Your task to perform on an android device: Open Yahoo.com Image 0: 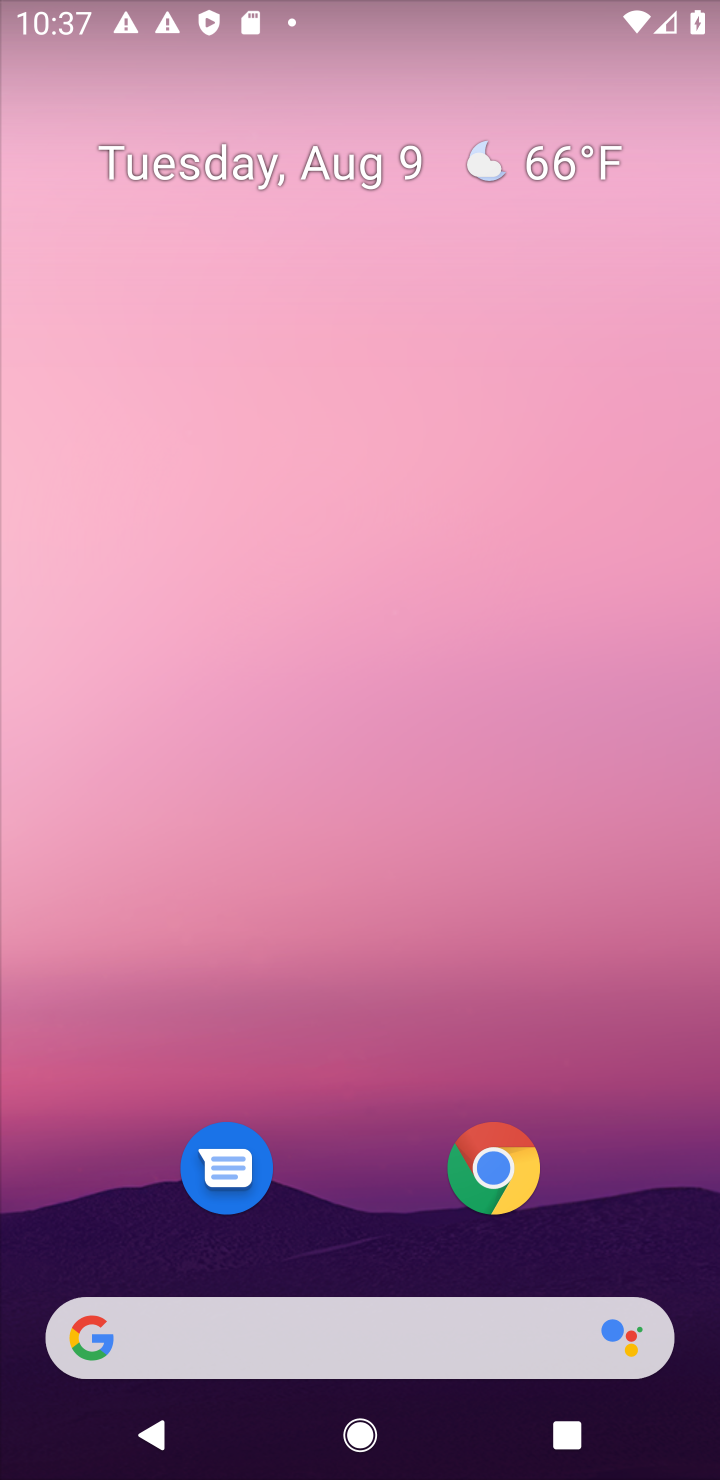
Step 0: drag from (385, 1184) to (445, 14)
Your task to perform on an android device: Open Yahoo.com Image 1: 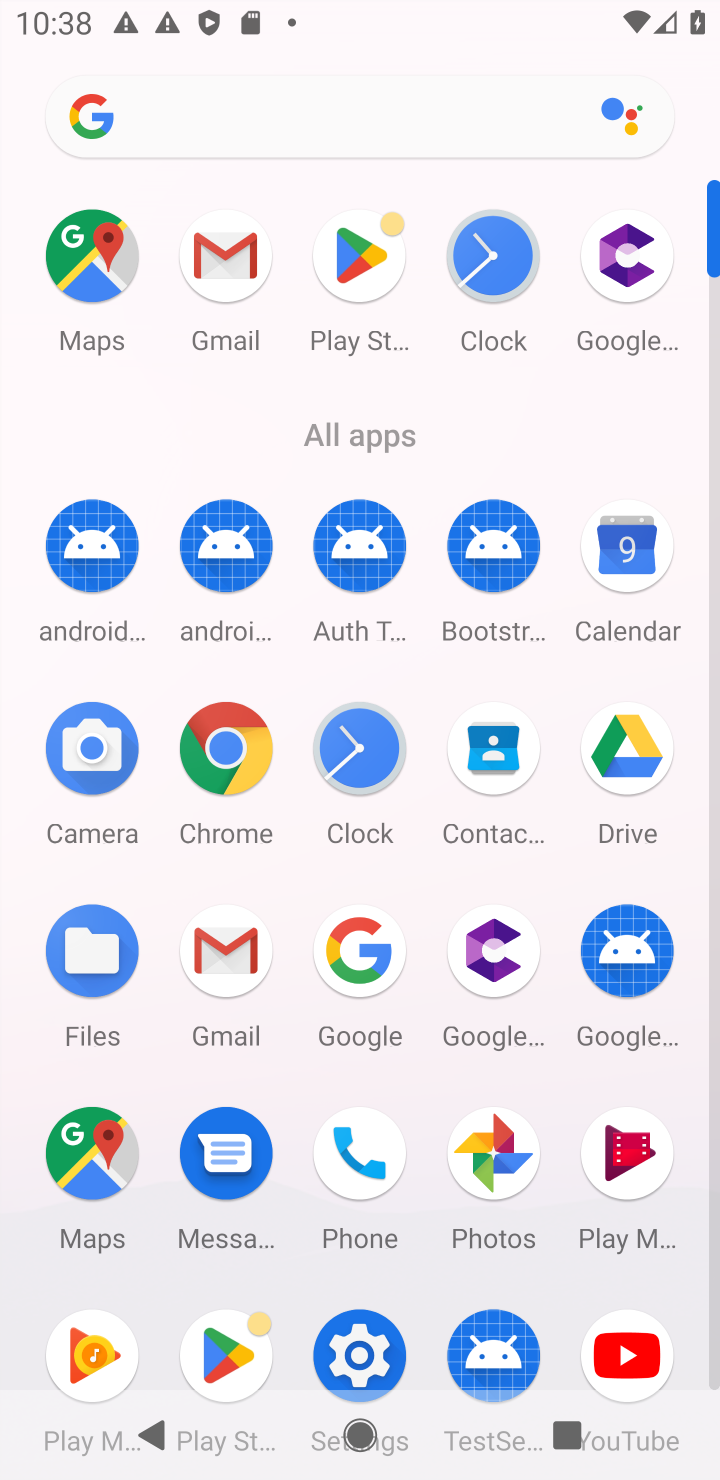
Step 1: click (232, 753)
Your task to perform on an android device: Open Yahoo.com Image 2: 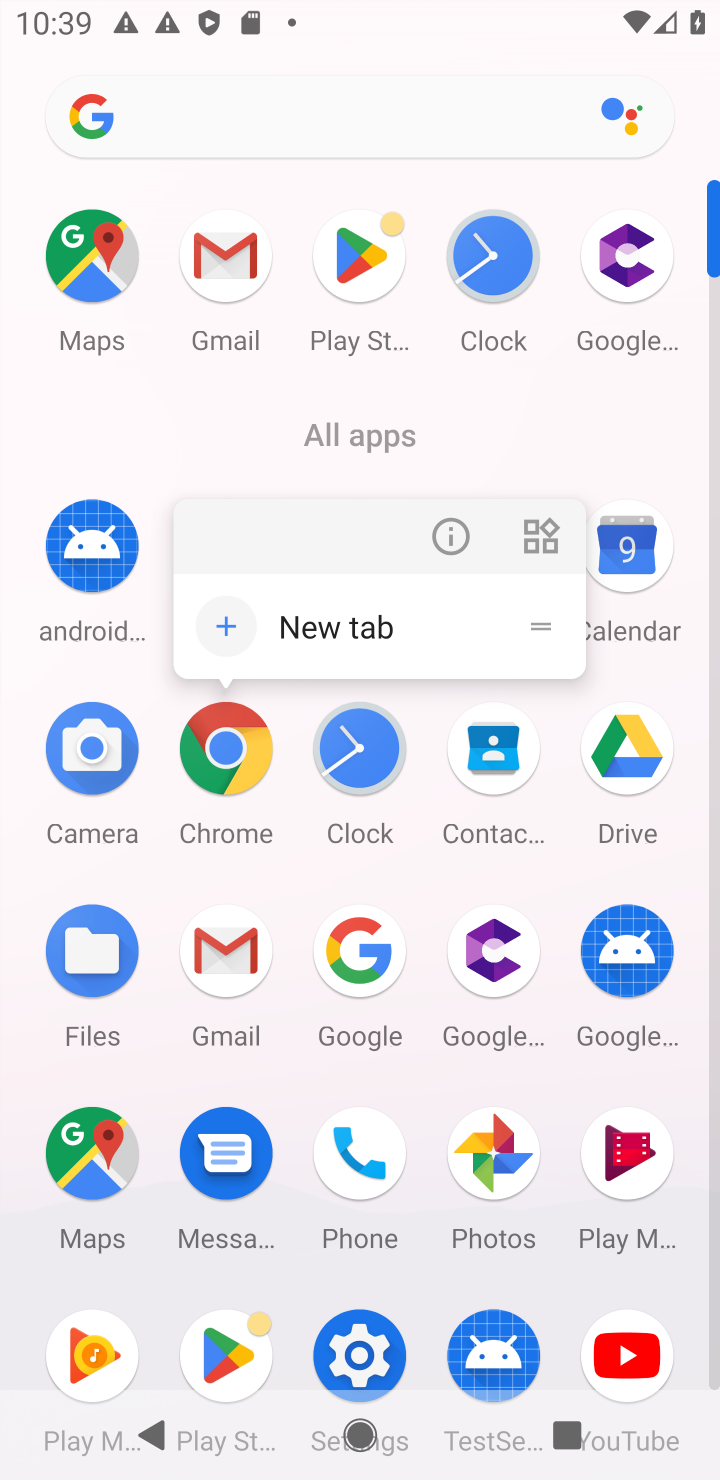
Step 2: click (227, 760)
Your task to perform on an android device: Open Yahoo.com Image 3: 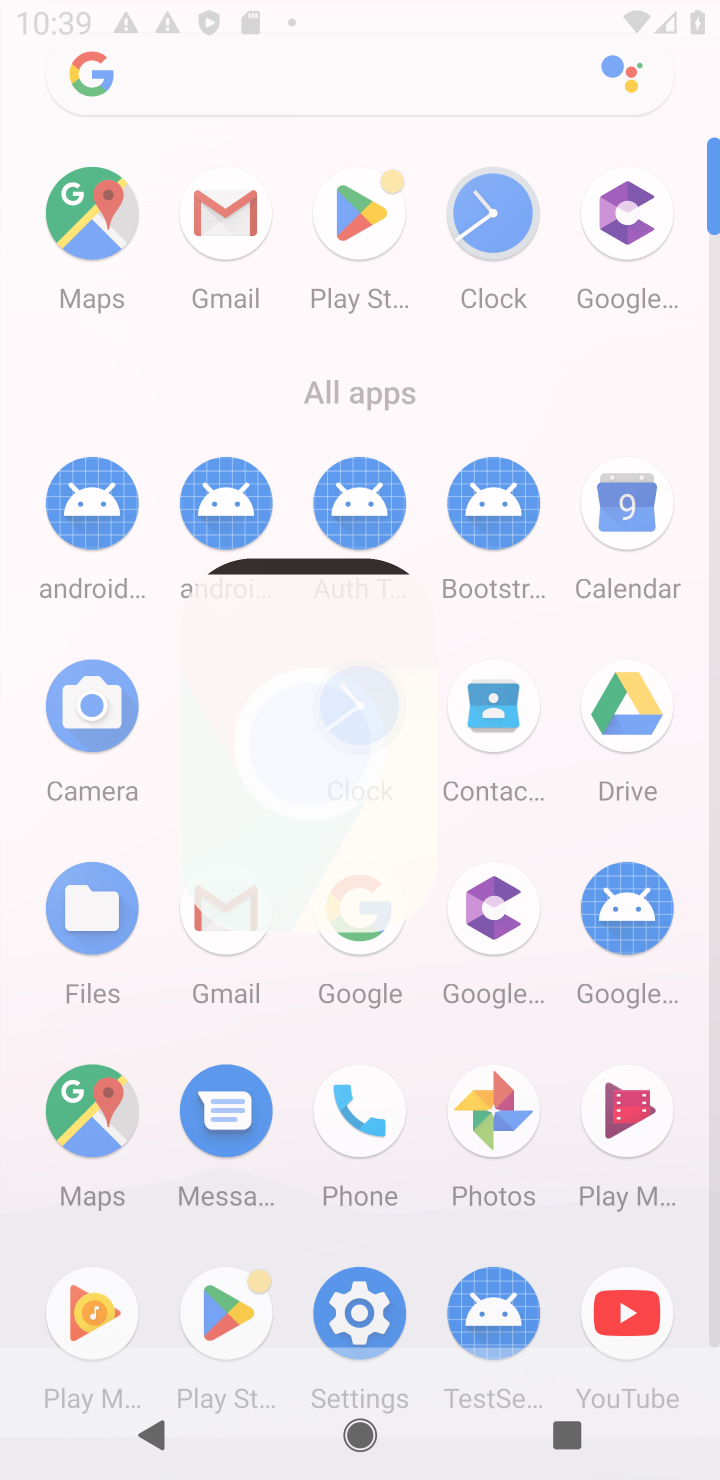
Step 3: click (227, 760)
Your task to perform on an android device: Open Yahoo.com Image 4: 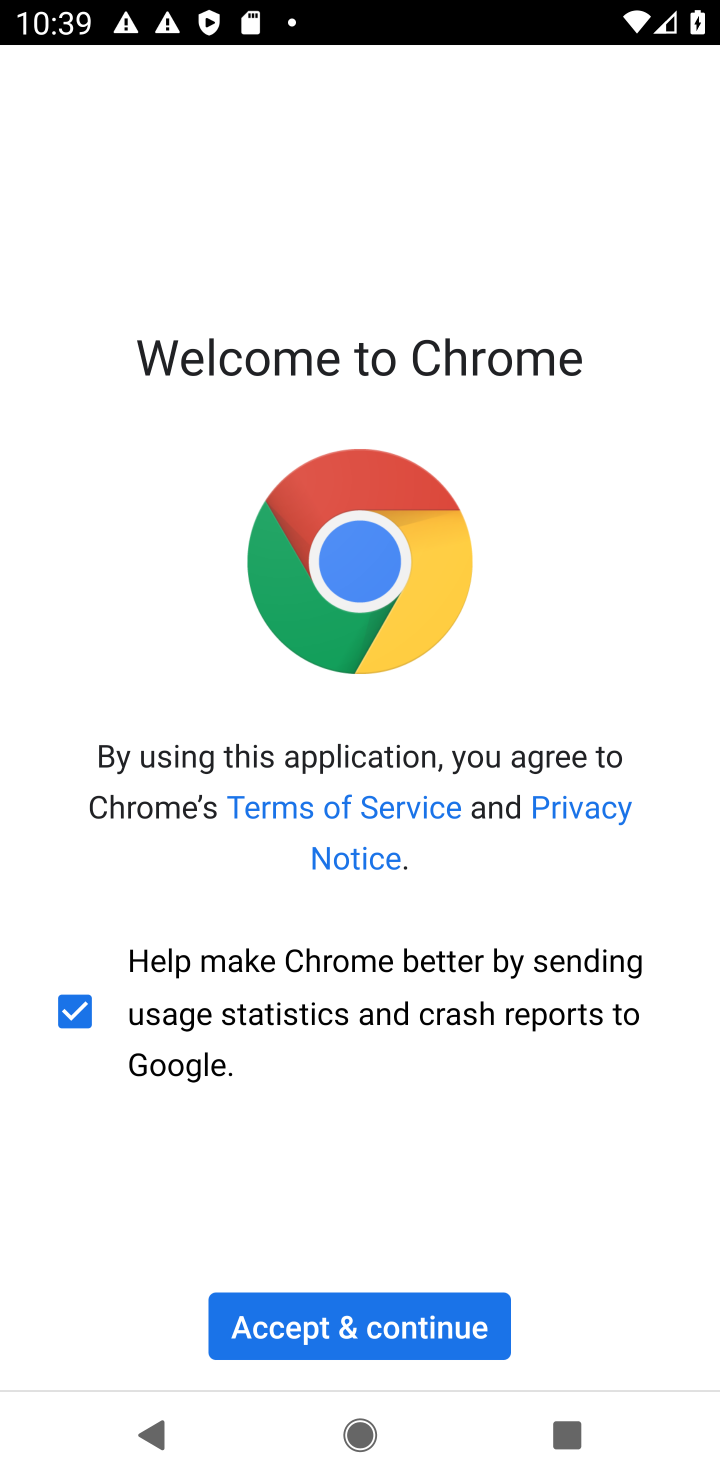
Step 4: click (385, 1326)
Your task to perform on an android device: Open Yahoo.com Image 5: 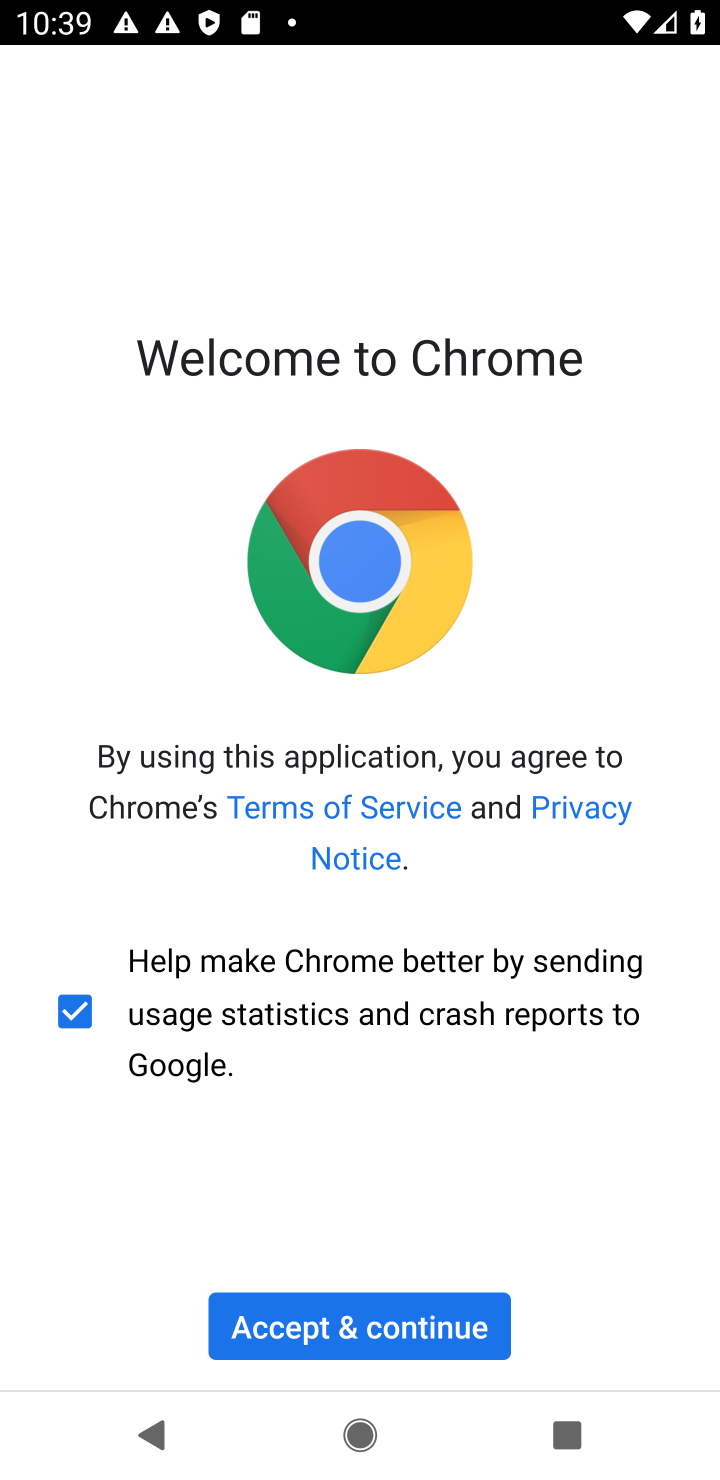
Step 5: click (385, 1326)
Your task to perform on an android device: Open Yahoo.com Image 6: 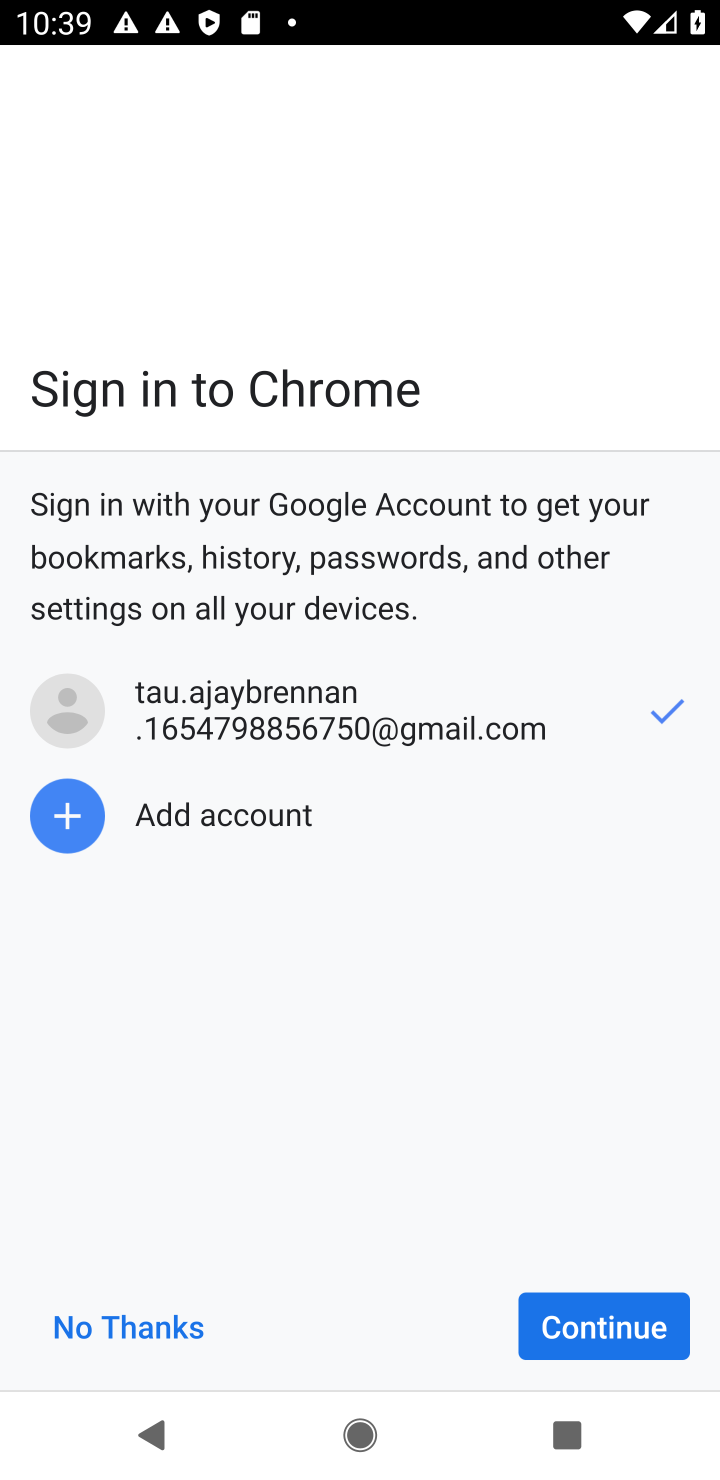
Step 6: click (385, 1326)
Your task to perform on an android device: Open Yahoo.com Image 7: 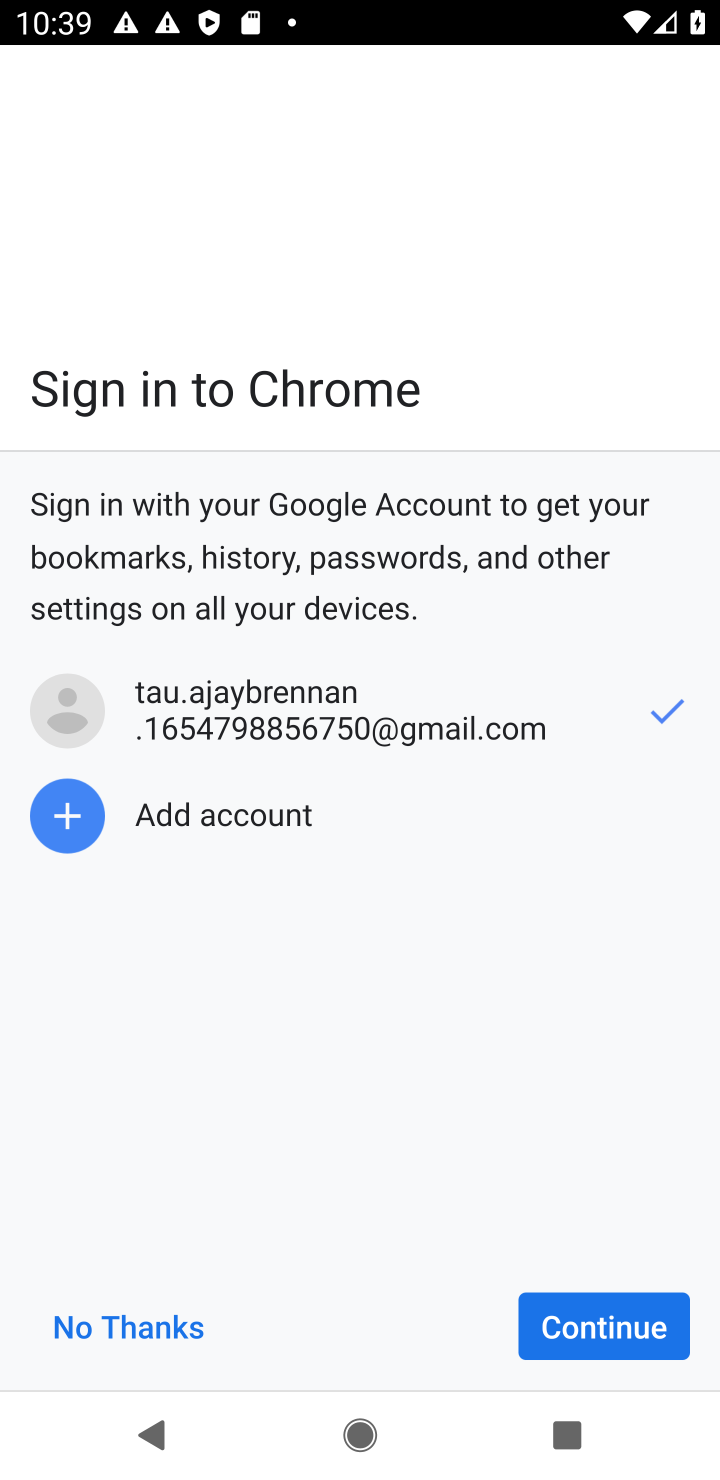
Step 7: click (569, 1313)
Your task to perform on an android device: Open Yahoo.com Image 8: 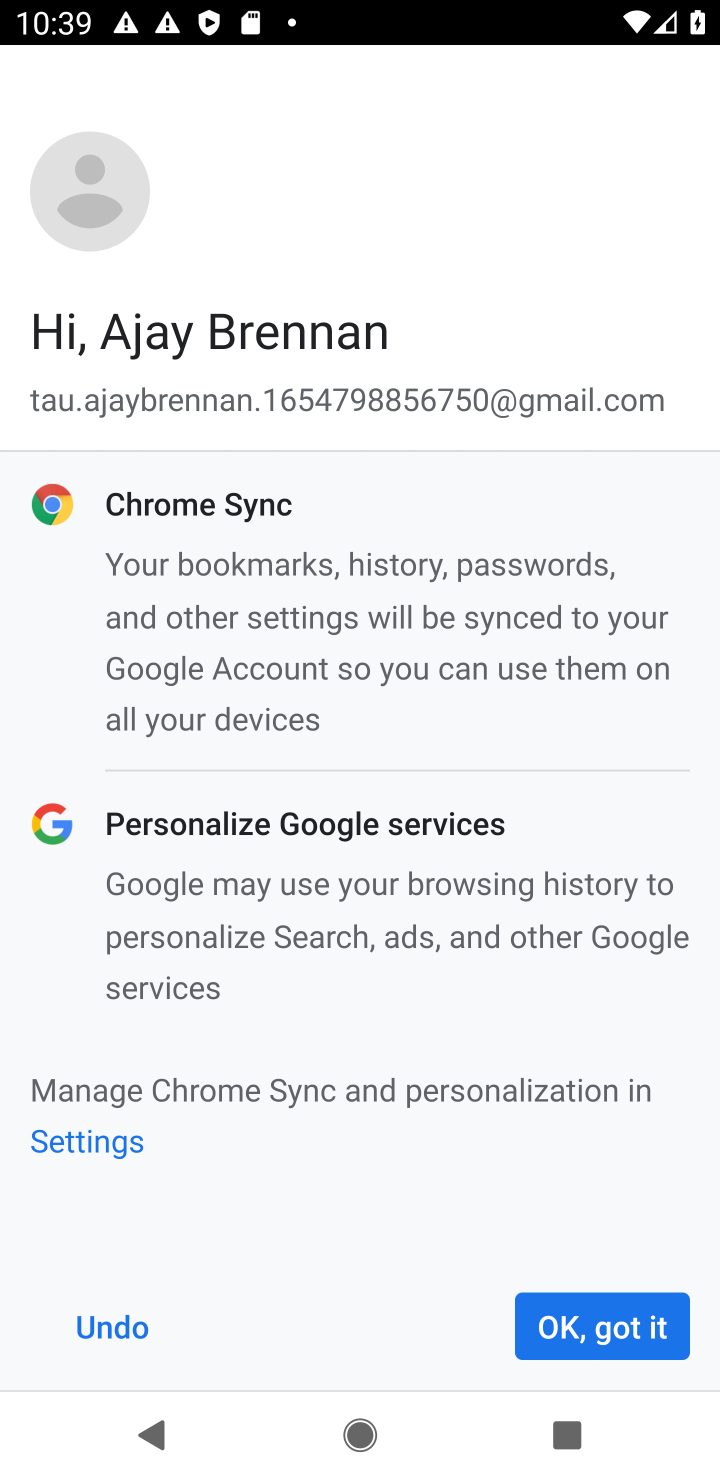
Step 8: click (582, 1327)
Your task to perform on an android device: Open Yahoo.com Image 9: 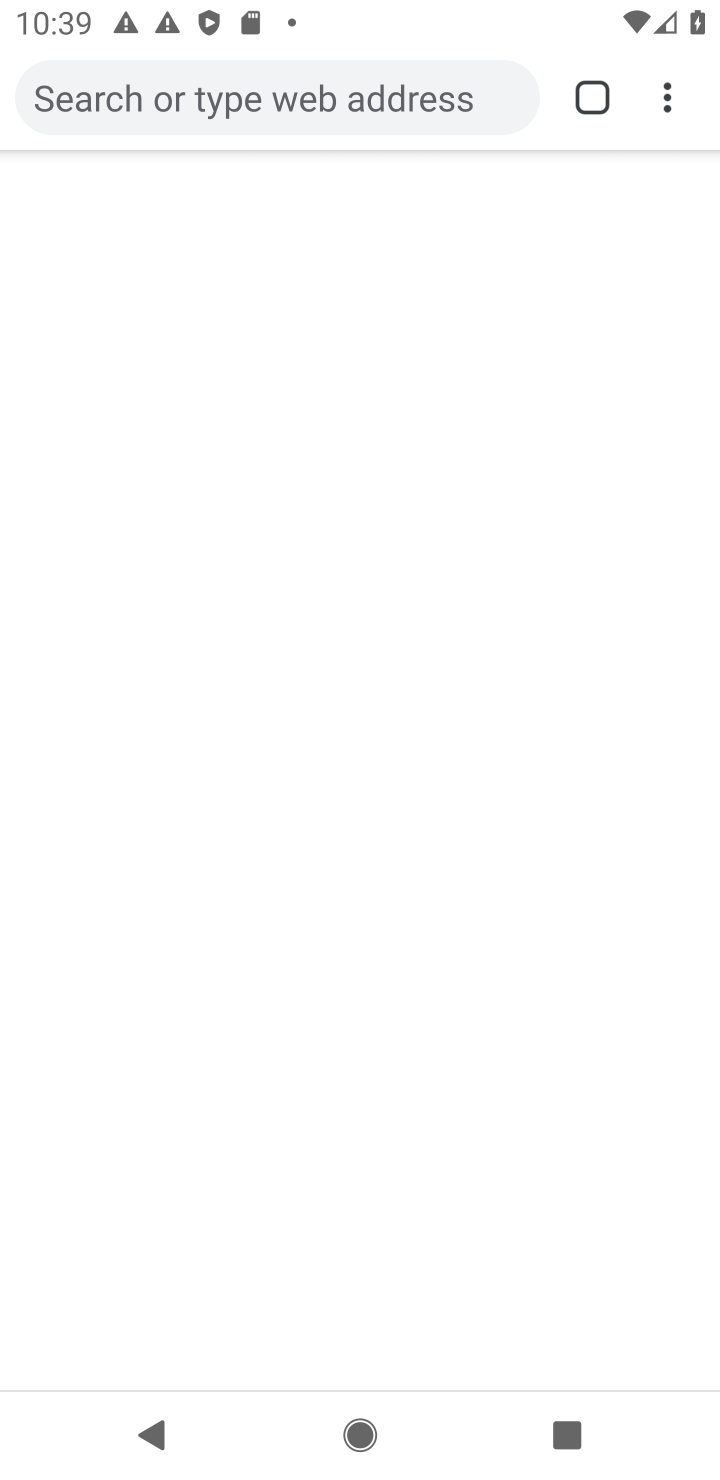
Step 9: click (290, 77)
Your task to perform on an android device: Open Yahoo.com Image 10: 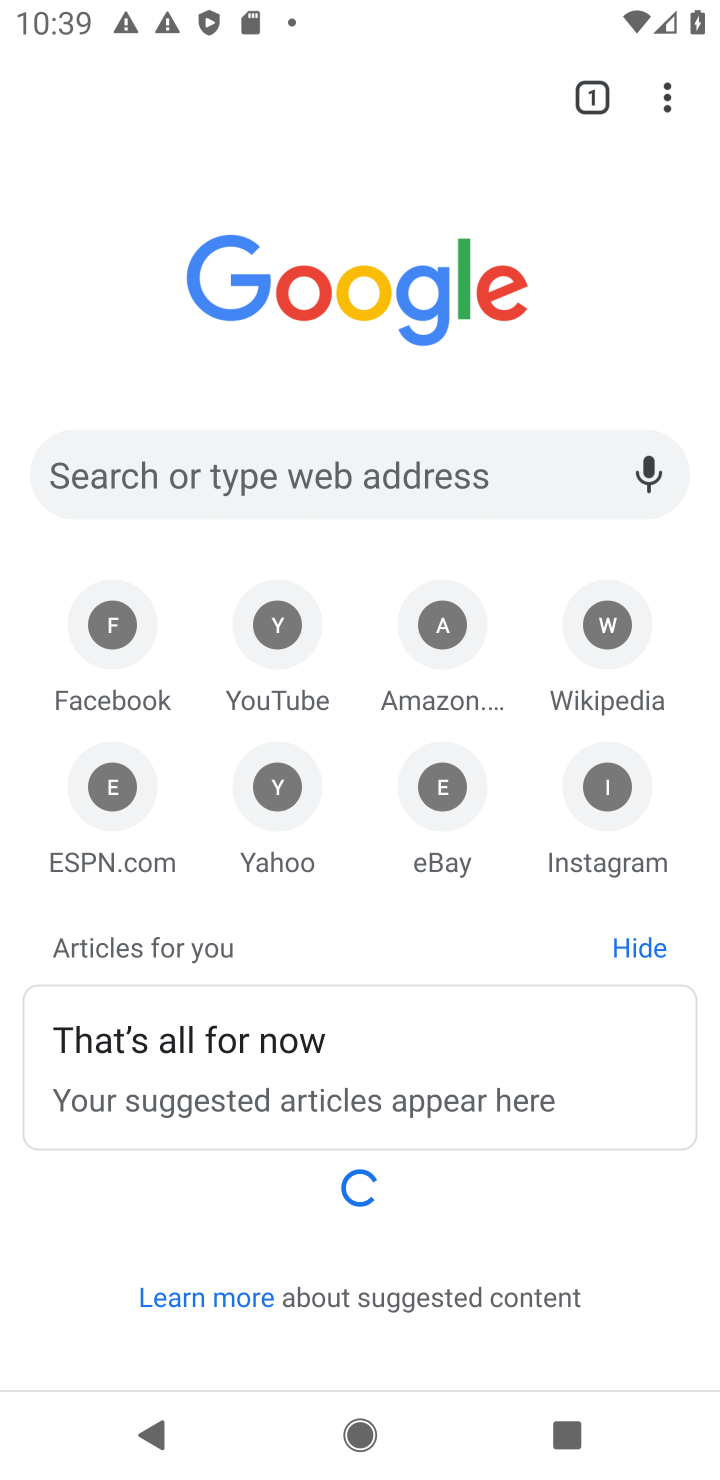
Step 10: click (253, 477)
Your task to perform on an android device: Open Yahoo.com Image 11: 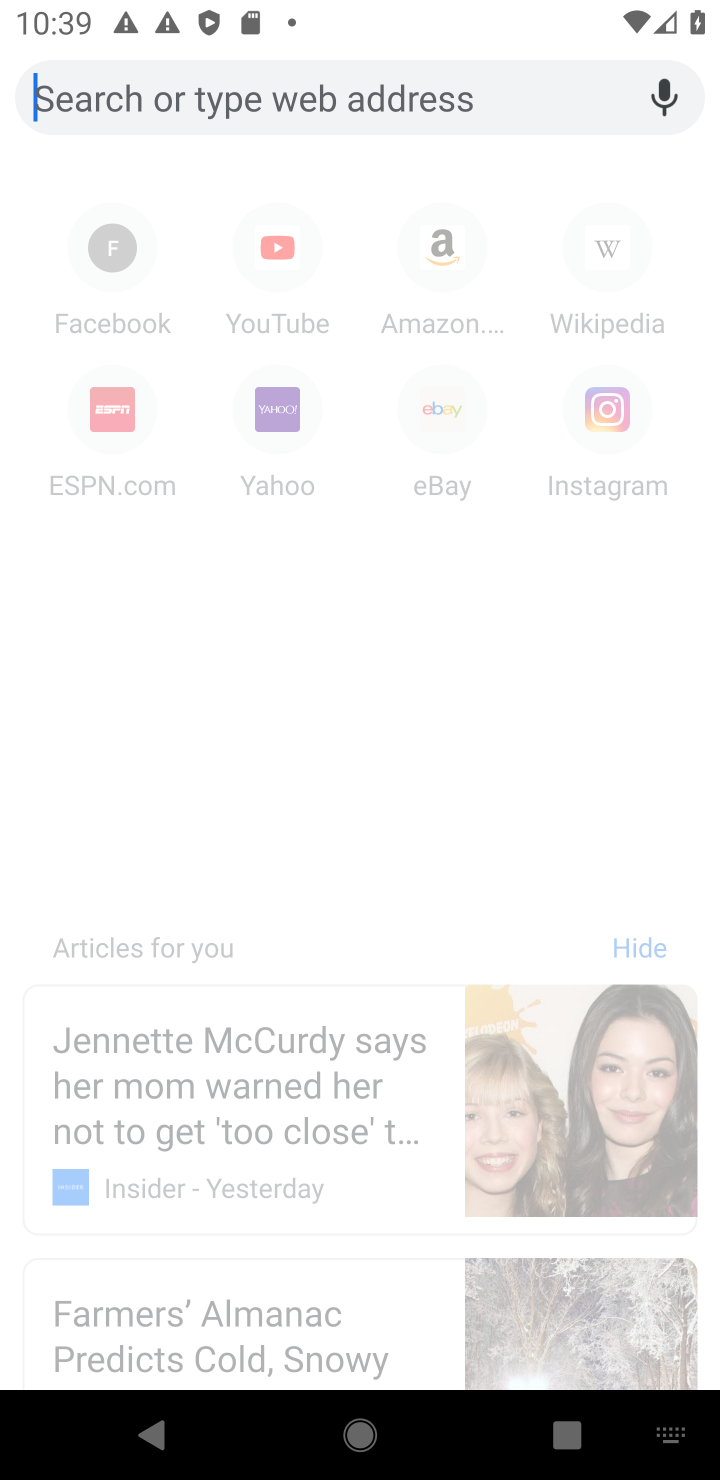
Step 11: type "Yahoo.com"
Your task to perform on an android device: Open Yahoo.com Image 12: 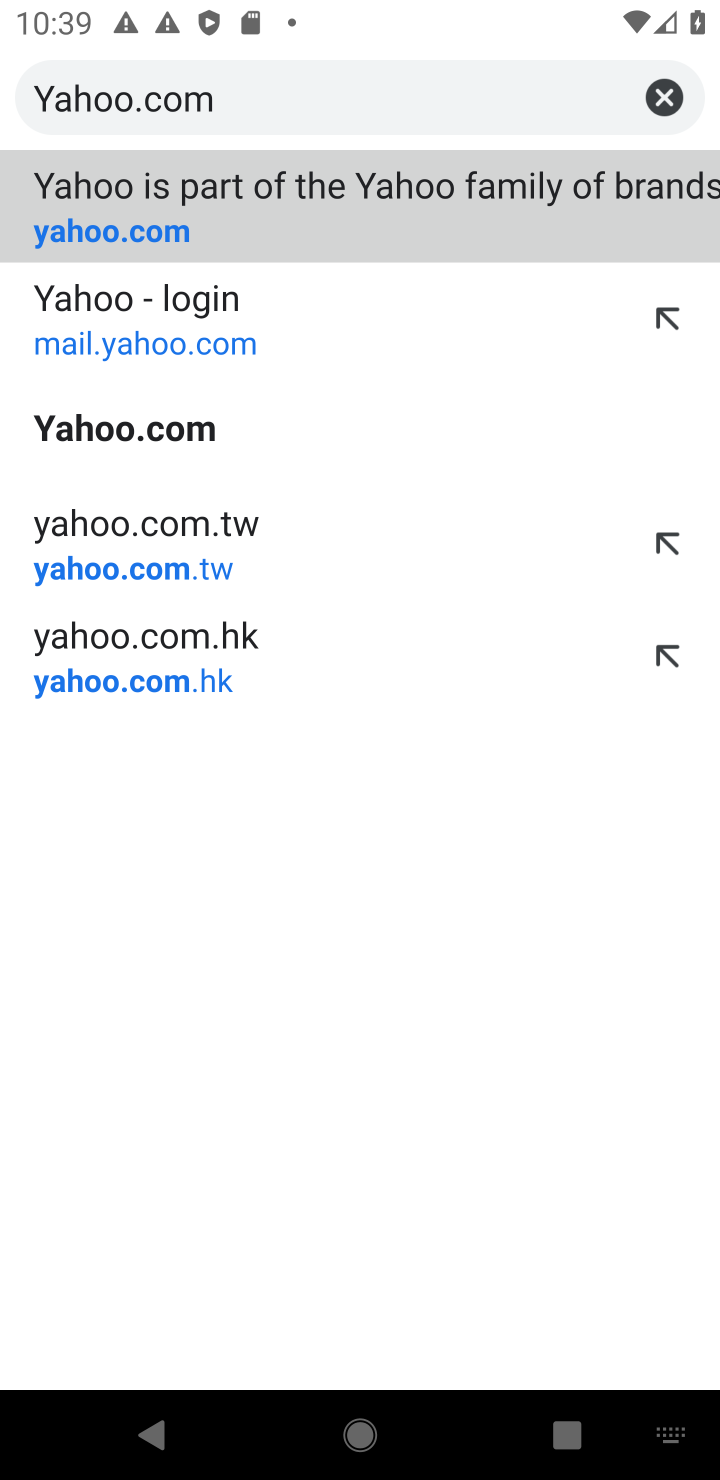
Step 12: click (162, 225)
Your task to perform on an android device: Open Yahoo.com Image 13: 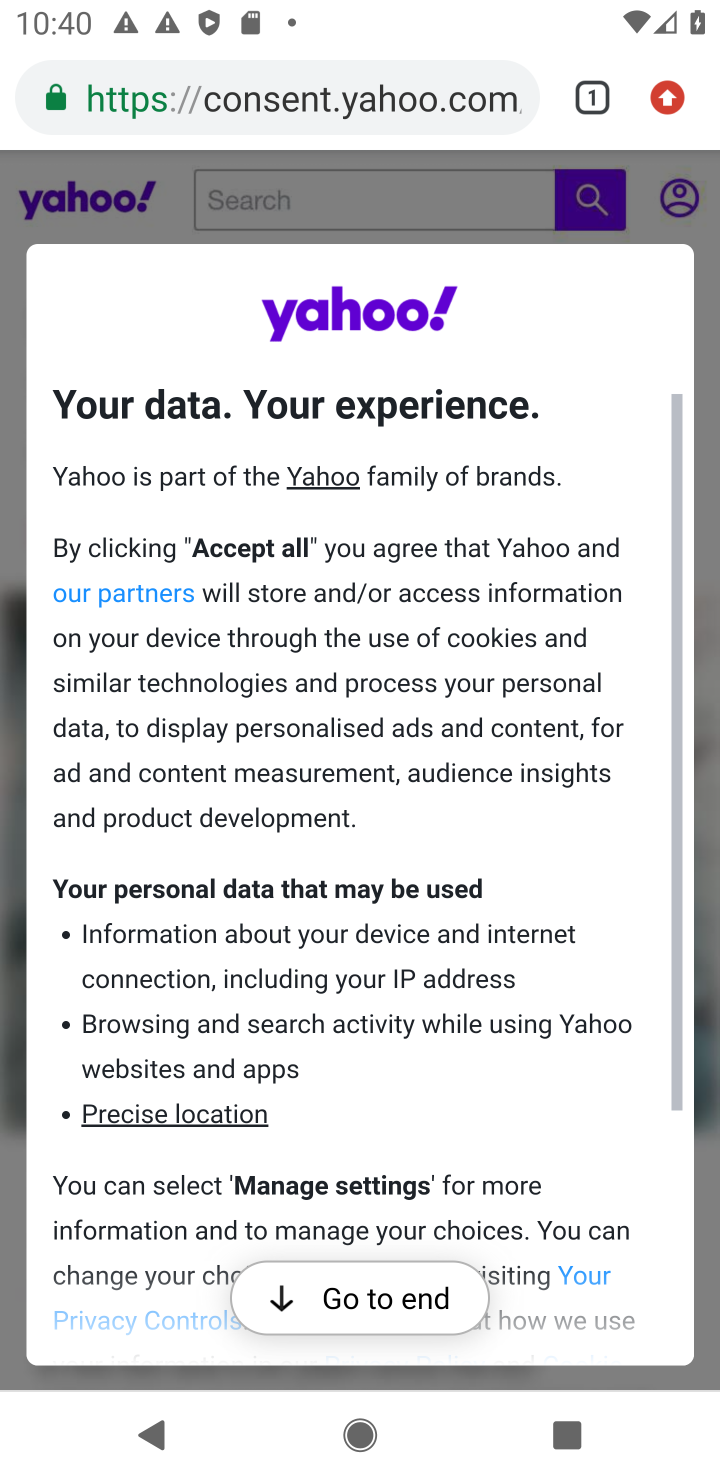
Step 13: drag from (471, 1031) to (491, 336)
Your task to perform on an android device: Open Yahoo.com Image 14: 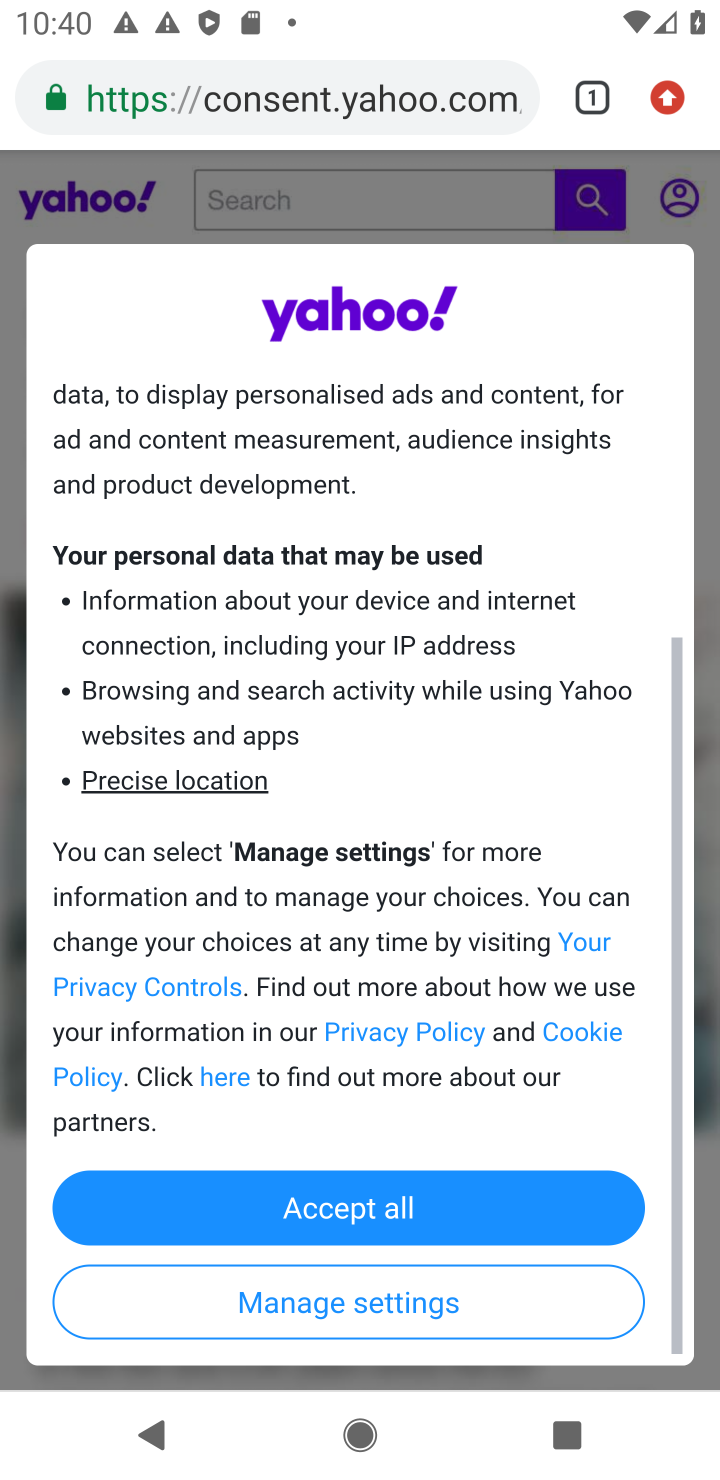
Step 14: click (390, 1212)
Your task to perform on an android device: Open Yahoo.com Image 15: 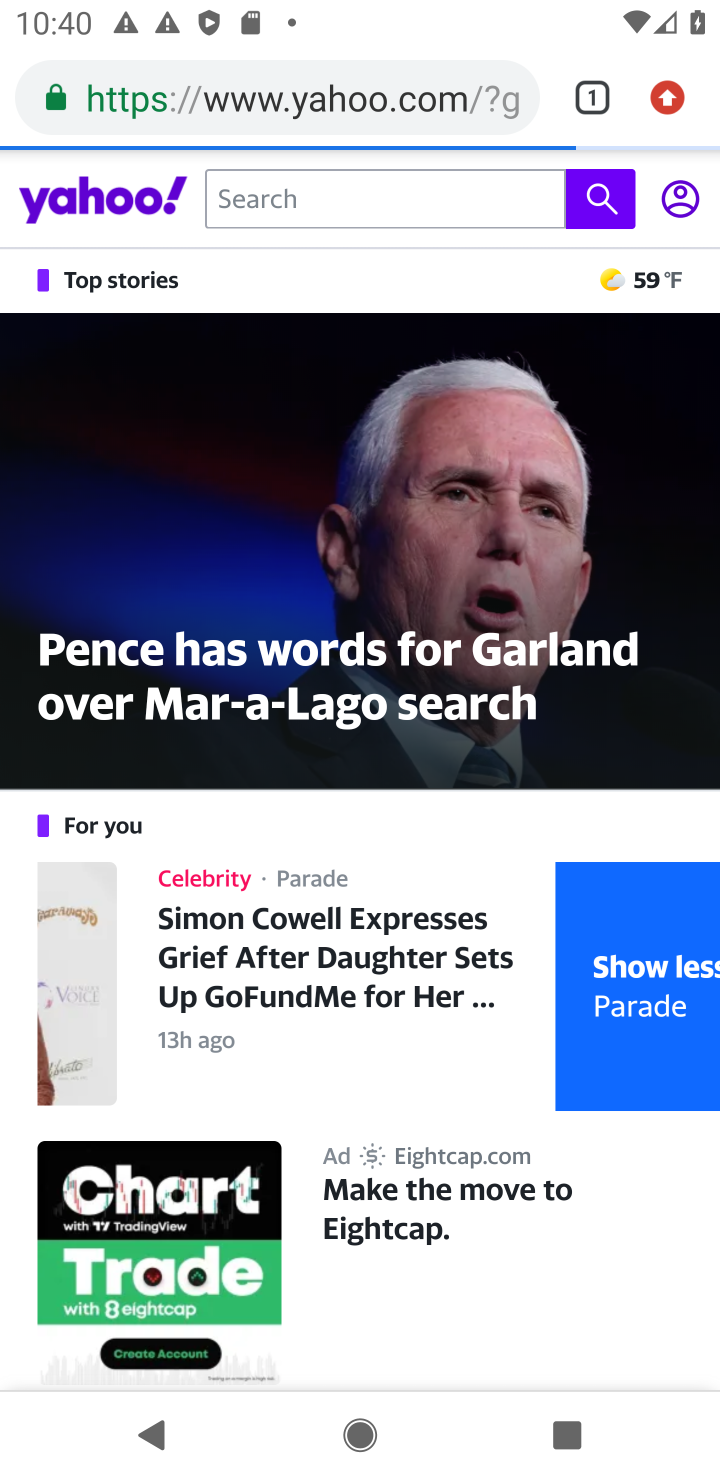
Step 15: task complete